Your task to perform on an android device: change text size in settings app Image 0: 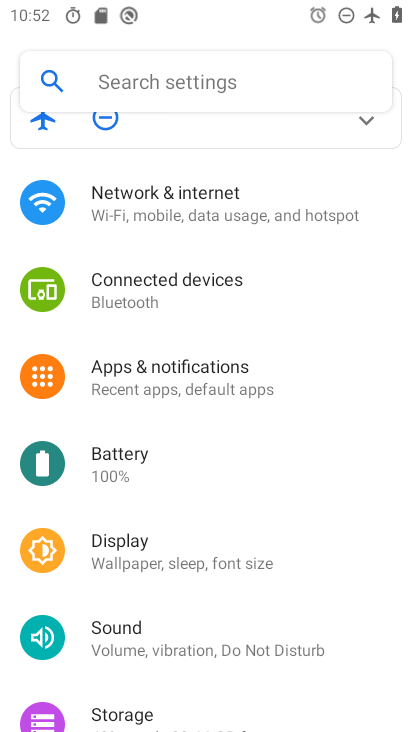
Step 0: click (133, 563)
Your task to perform on an android device: change text size in settings app Image 1: 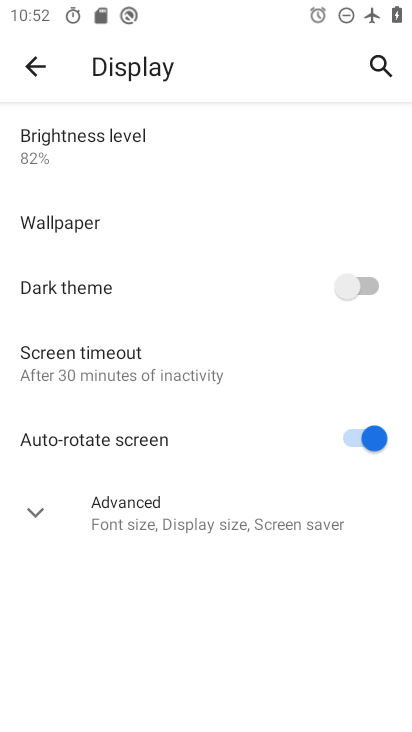
Step 1: click (124, 525)
Your task to perform on an android device: change text size in settings app Image 2: 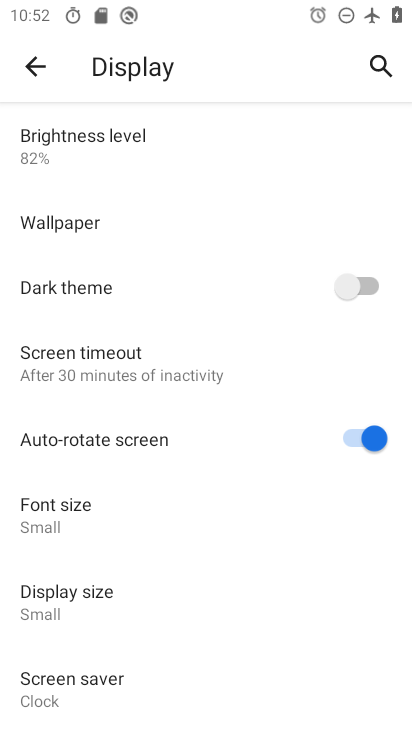
Step 2: click (72, 500)
Your task to perform on an android device: change text size in settings app Image 3: 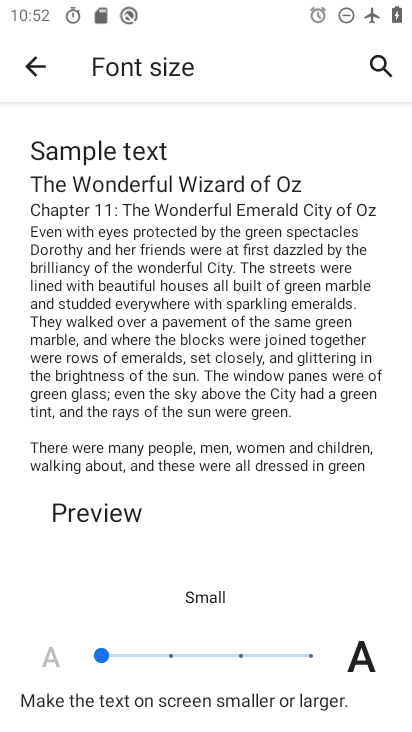
Step 3: click (172, 646)
Your task to perform on an android device: change text size in settings app Image 4: 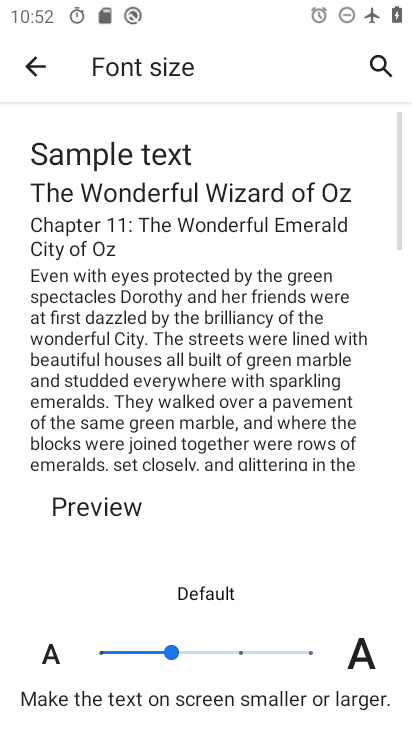
Step 4: task complete